Your task to perform on an android device: toggle priority inbox in the gmail app Image 0: 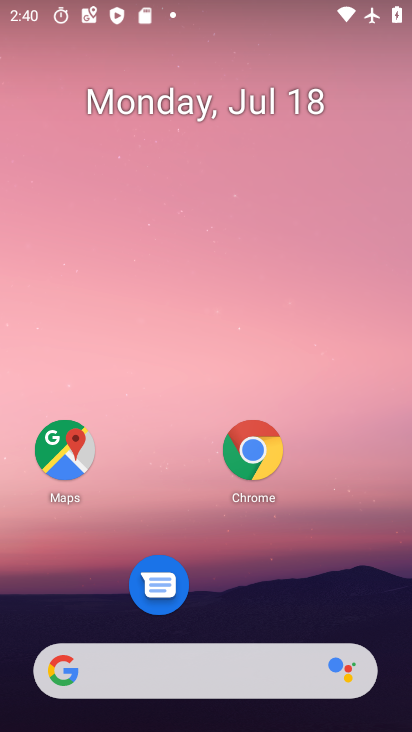
Step 0: drag from (206, 518) to (296, 136)
Your task to perform on an android device: toggle priority inbox in the gmail app Image 1: 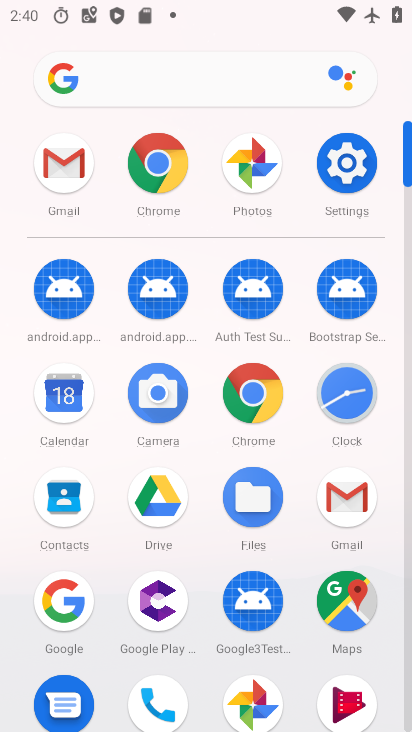
Step 1: click (66, 176)
Your task to perform on an android device: toggle priority inbox in the gmail app Image 2: 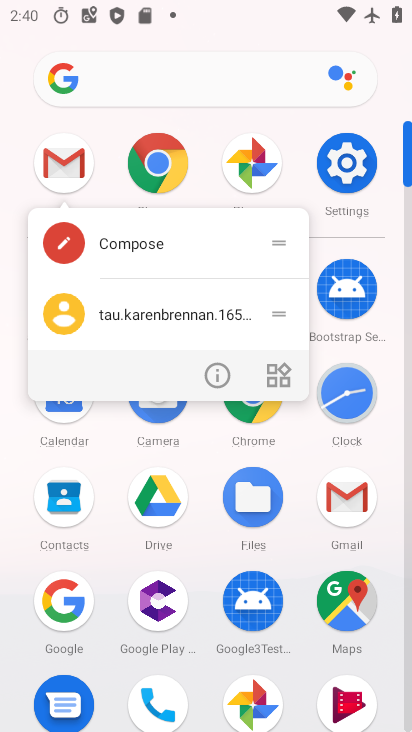
Step 2: click (68, 172)
Your task to perform on an android device: toggle priority inbox in the gmail app Image 3: 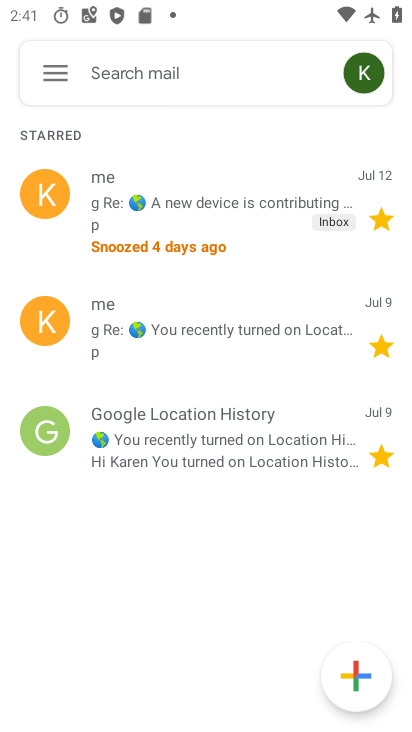
Step 3: click (54, 73)
Your task to perform on an android device: toggle priority inbox in the gmail app Image 4: 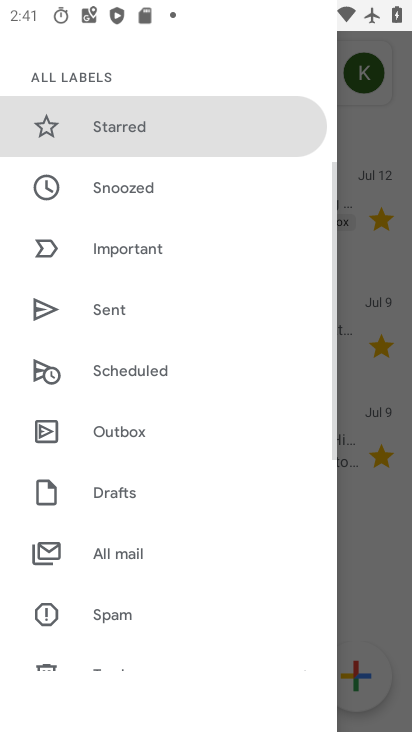
Step 4: drag from (171, 593) to (260, 185)
Your task to perform on an android device: toggle priority inbox in the gmail app Image 5: 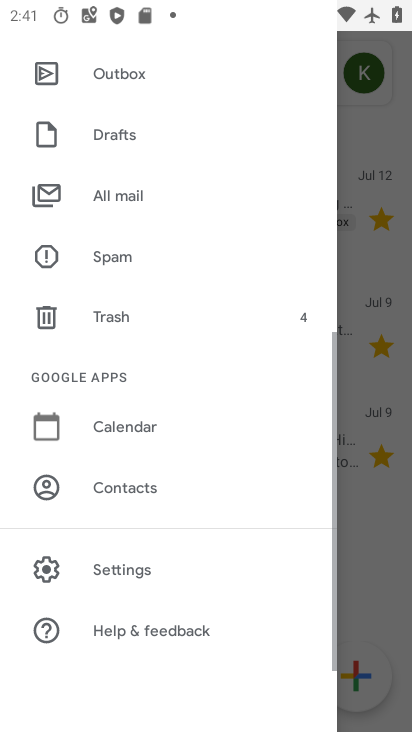
Step 5: click (124, 566)
Your task to perform on an android device: toggle priority inbox in the gmail app Image 6: 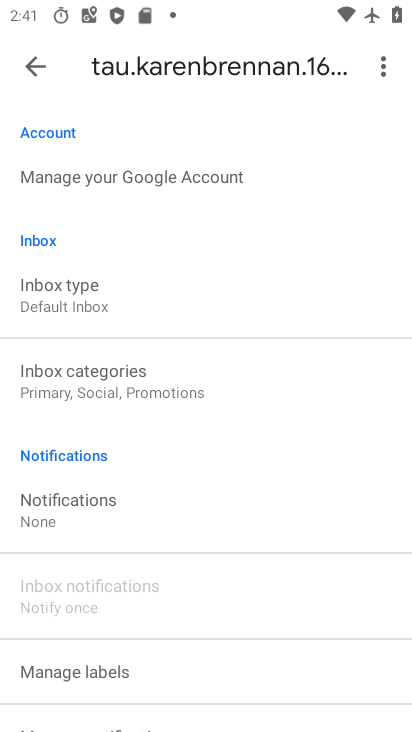
Step 6: click (58, 308)
Your task to perform on an android device: toggle priority inbox in the gmail app Image 7: 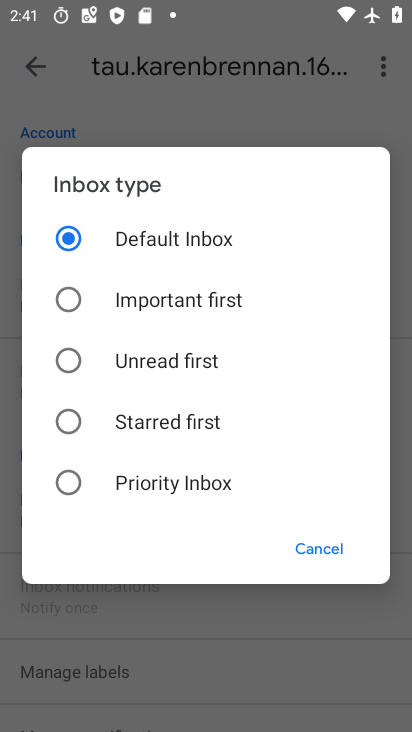
Step 7: click (60, 478)
Your task to perform on an android device: toggle priority inbox in the gmail app Image 8: 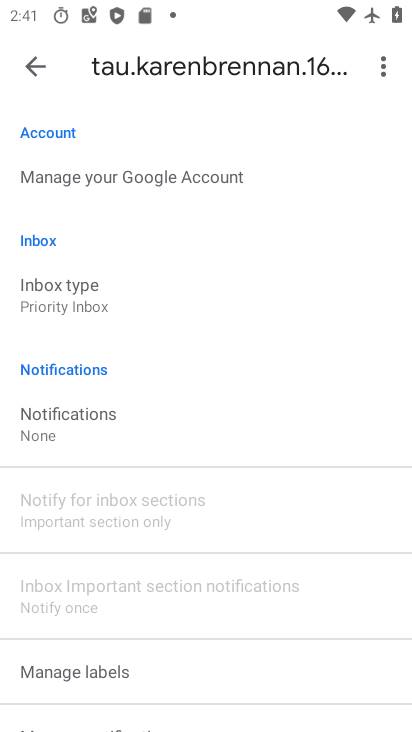
Step 8: task complete